Your task to perform on an android device: turn on translation in the chrome app Image 0: 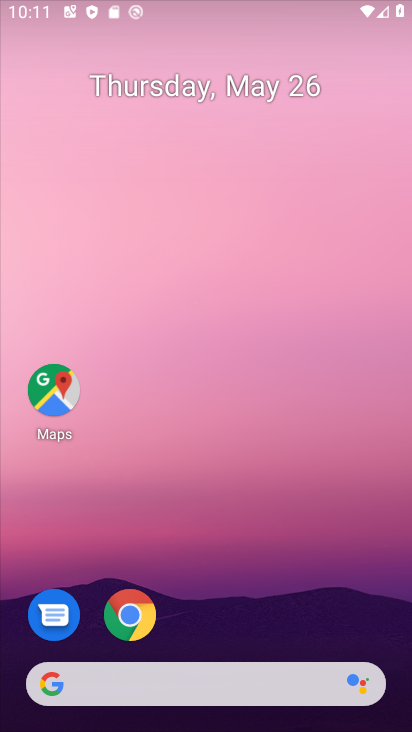
Step 0: click (280, 11)
Your task to perform on an android device: turn on translation in the chrome app Image 1: 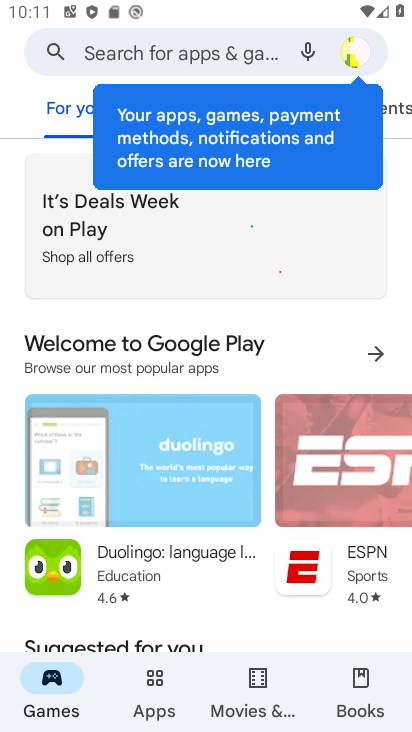
Step 1: press home button
Your task to perform on an android device: turn on translation in the chrome app Image 2: 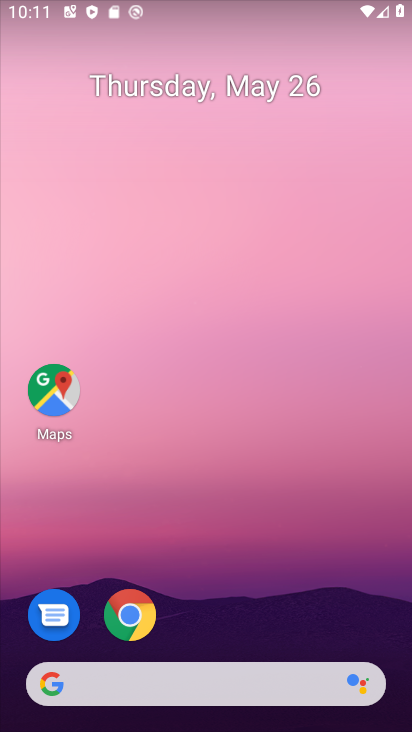
Step 2: drag from (285, 661) to (340, 141)
Your task to perform on an android device: turn on translation in the chrome app Image 3: 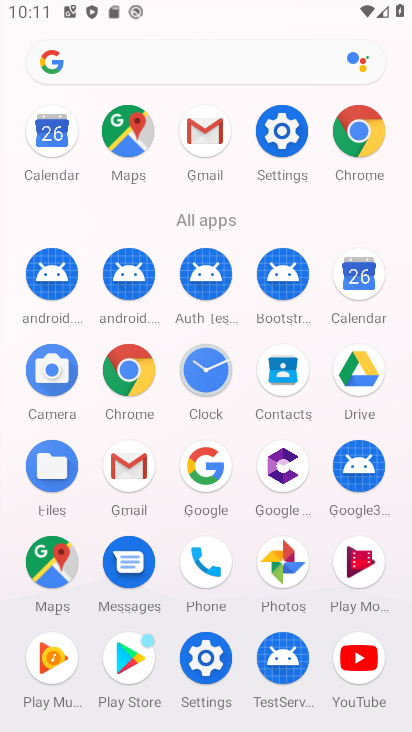
Step 3: click (125, 382)
Your task to perform on an android device: turn on translation in the chrome app Image 4: 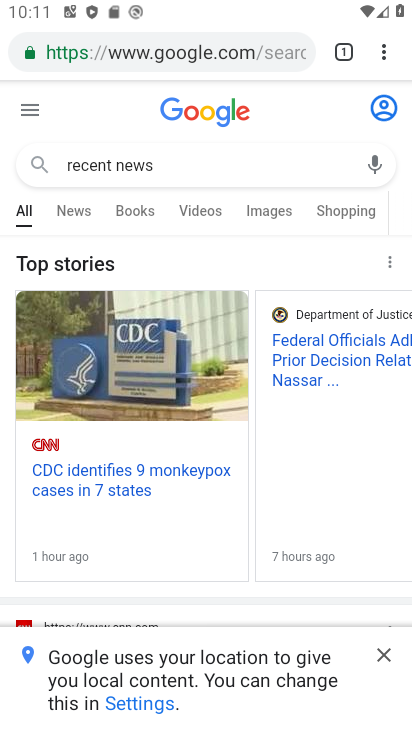
Step 4: drag from (377, 44) to (220, 578)
Your task to perform on an android device: turn on translation in the chrome app Image 5: 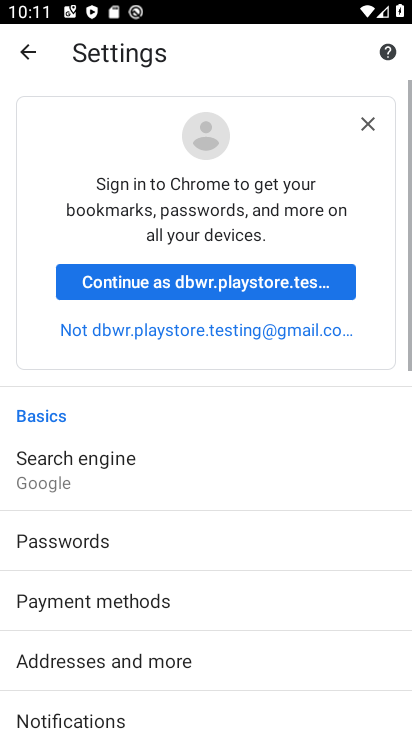
Step 5: drag from (212, 724) to (277, 131)
Your task to perform on an android device: turn on translation in the chrome app Image 6: 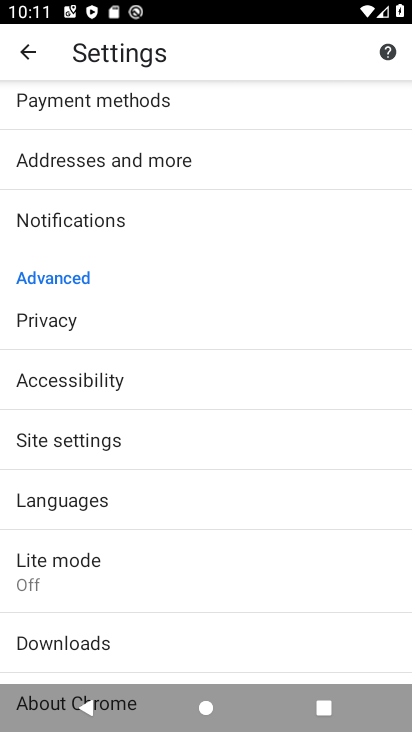
Step 6: click (151, 475)
Your task to perform on an android device: turn on translation in the chrome app Image 7: 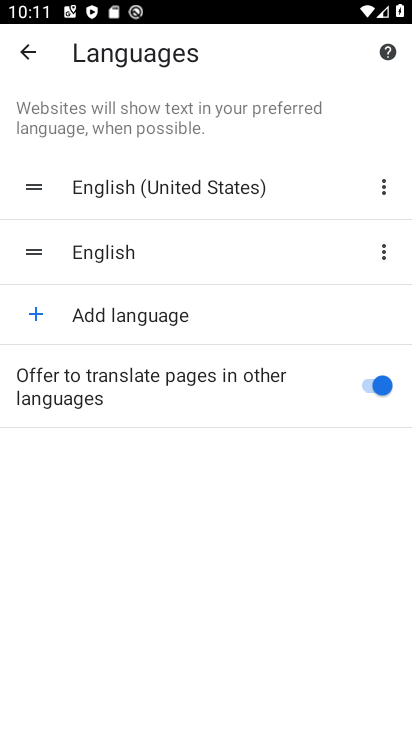
Step 7: task complete